Your task to perform on an android device: turn pop-ups on in chrome Image 0: 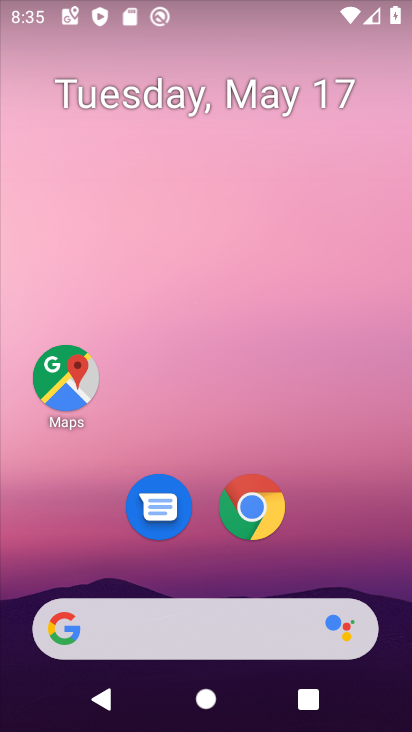
Step 0: drag from (280, 659) to (264, 1)
Your task to perform on an android device: turn pop-ups on in chrome Image 1: 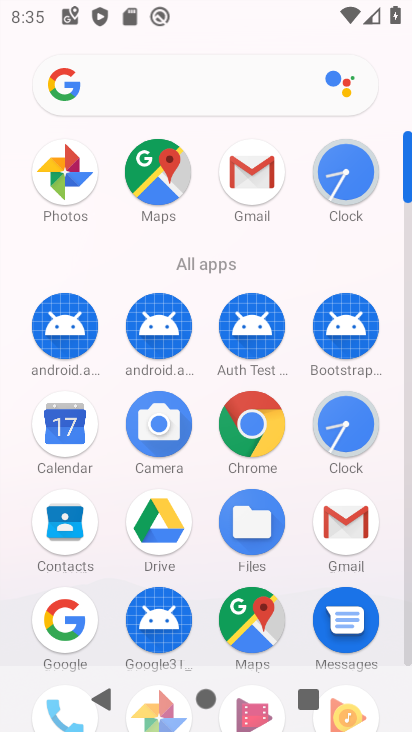
Step 1: click (255, 398)
Your task to perform on an android device: turn pop-ups on in chrome Image 2: 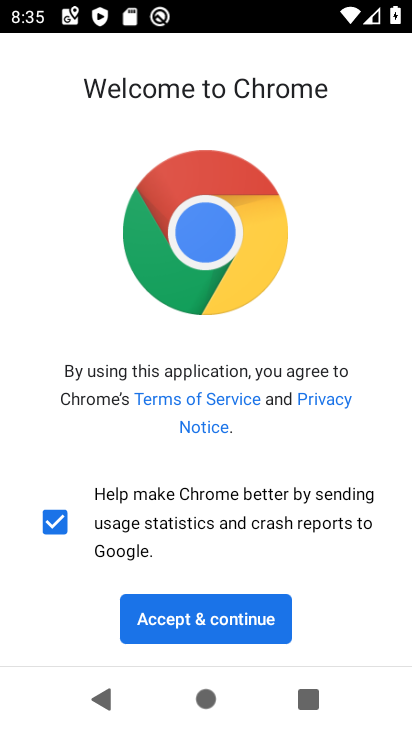
Step 2: click (241, 606)
Your task to perform on an android device: turn pop-ups on in chrome Image 3: 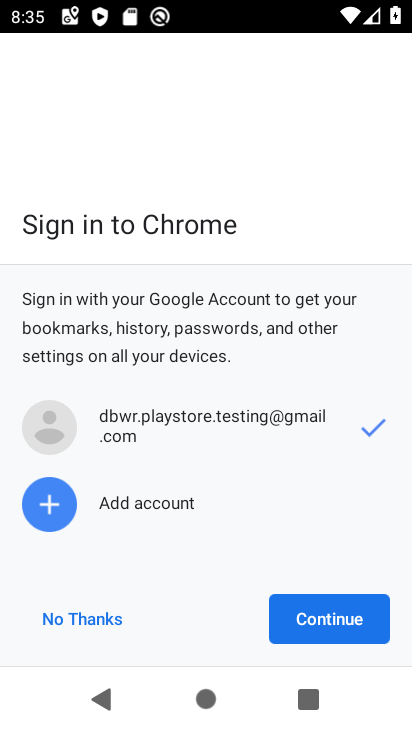
Step 3: click (105, 614)
Your task to perform on an android device: turn pop-ups on in chrome Image 4: 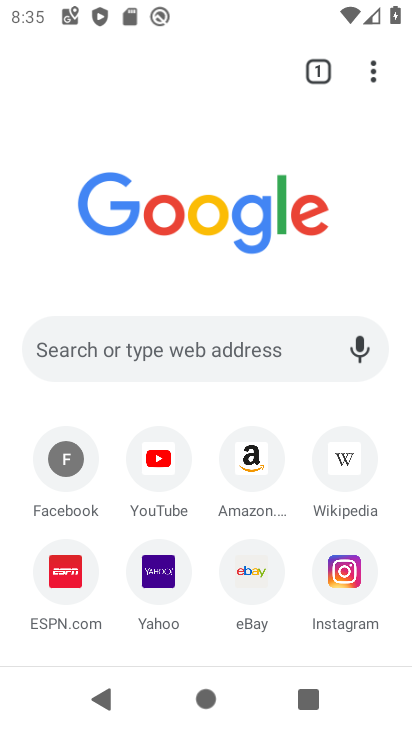
Step 4: click (371, 69)
Your task to perform on an android device: turn pop-ups on in chrome Image 5: 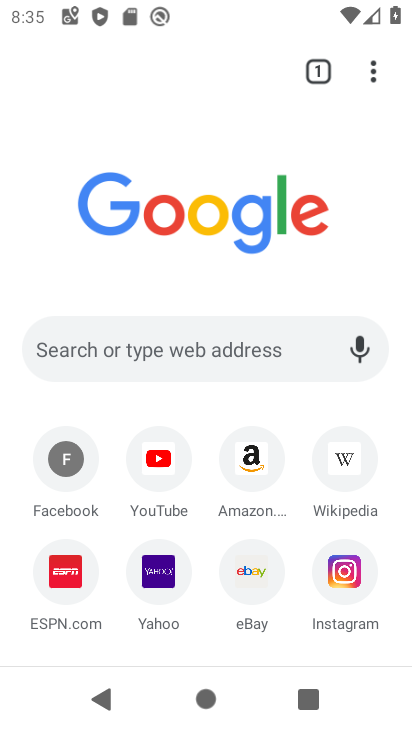
Step 5: click (372, 75)
Your task to perform on an android device: turn pop-ups on in chrome Image 6: 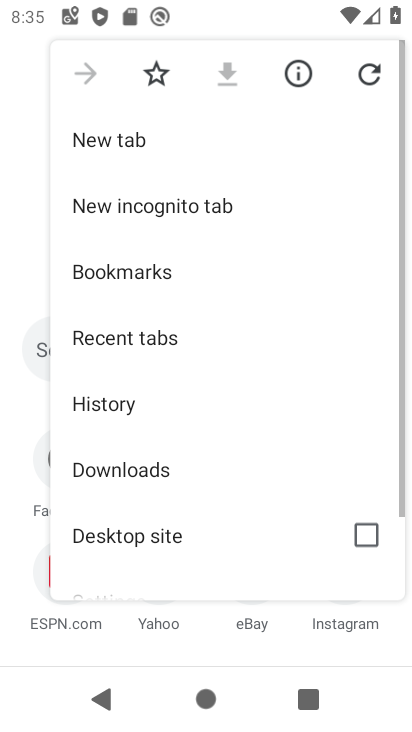
Step 6: drag from (251, 506) to (306, 95)
Your task to perform on an android device: turn pop-ups on in chrome Image 7: 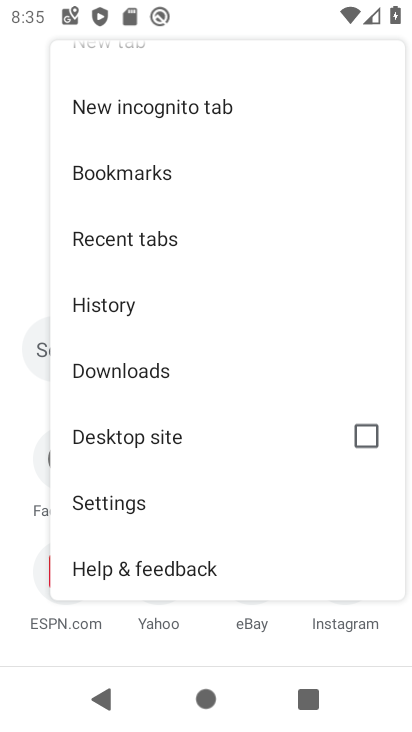
Step 7: click (218, 510)
Your task to perform on an android device: turn pop-ups on in chrome Image 8: 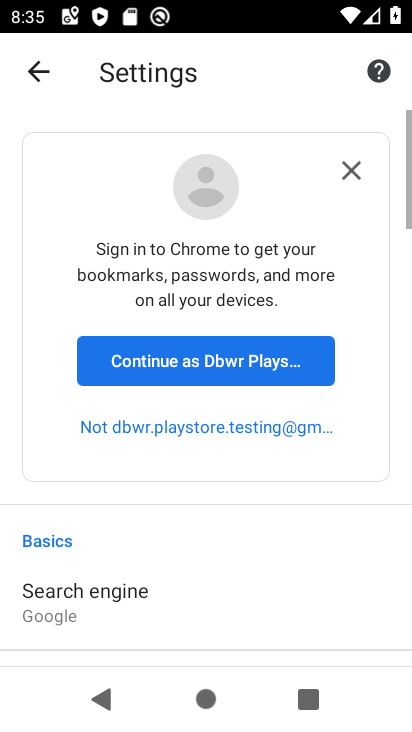
Step 8: drag from (318, 611) to (381, 4)
Your task to perform on an android device: turn pop-ups on in chrome Image 9: 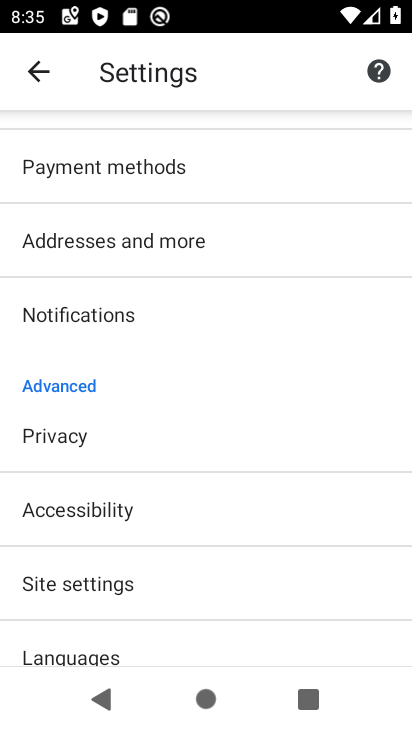
Step 9: drag from (232, 625) to (242, 431)
Your task to perform on an android device: turn pop-ups on in chrome Image 10: 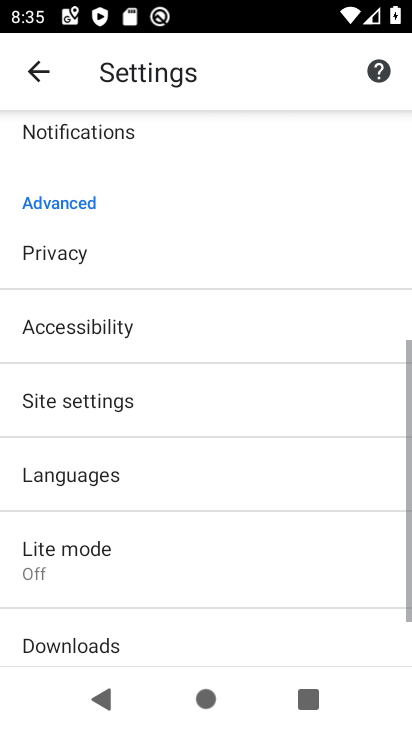
Step 10: click (193, 383)
Your task to perform on an android device: turn pop-ups on in chrome Image 11: 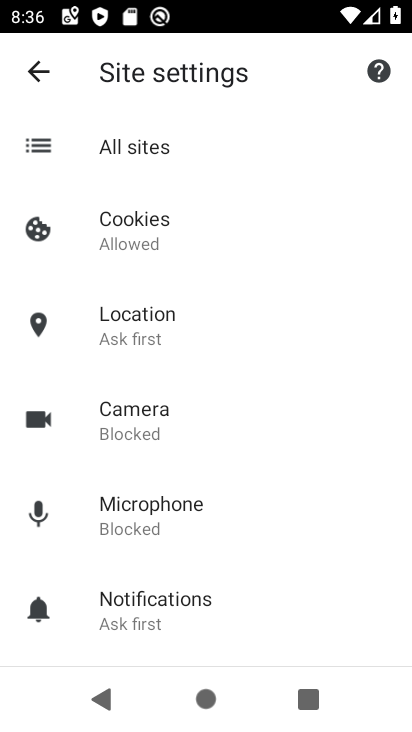
Step 11: drag from (216, 569) to (278, 319)
Your task to perform on an android device: turn pop-ups on in chrome Image 12: 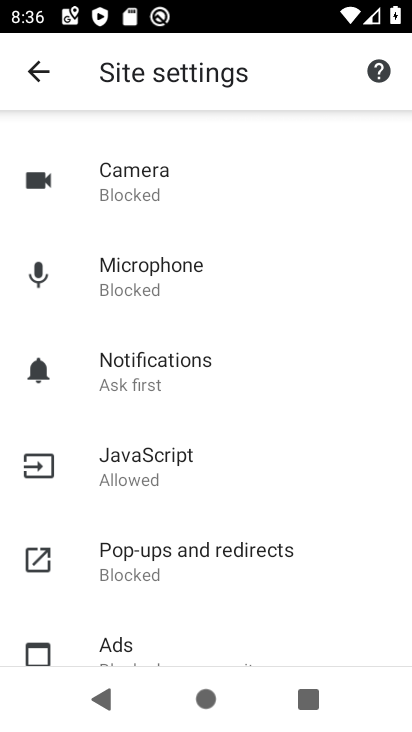
Step 12: click (212, 539)
Your task to perform on an android device: turn pop-ups on in chrome Image 13: 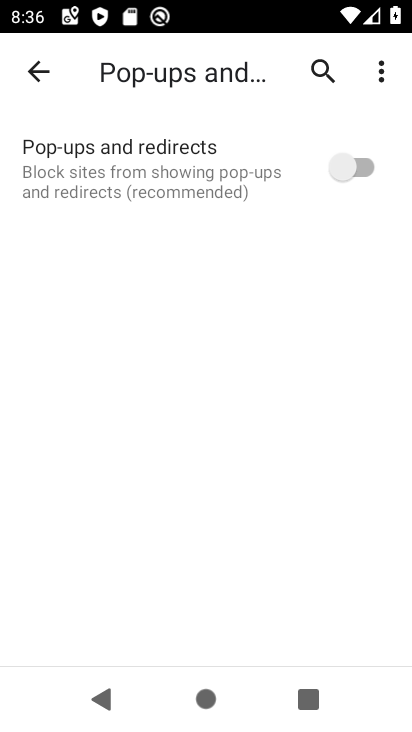
Step 13: click (360, 167)
Your task to perform on an android device: turn pop-ups on in chrome Image 14: 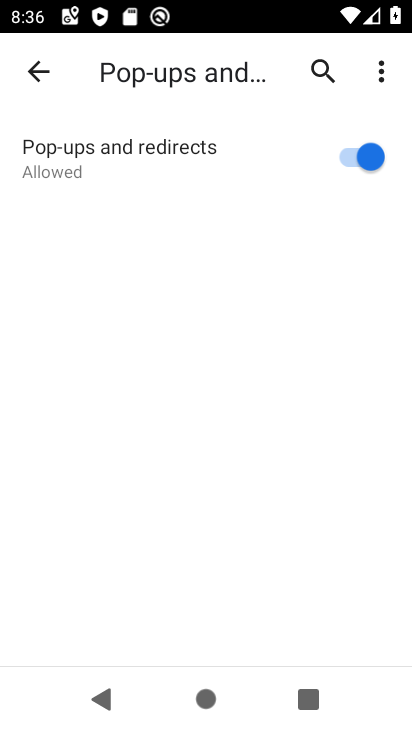
Step 14: task complete